Your task to perform on an android device: check android version Image 0: 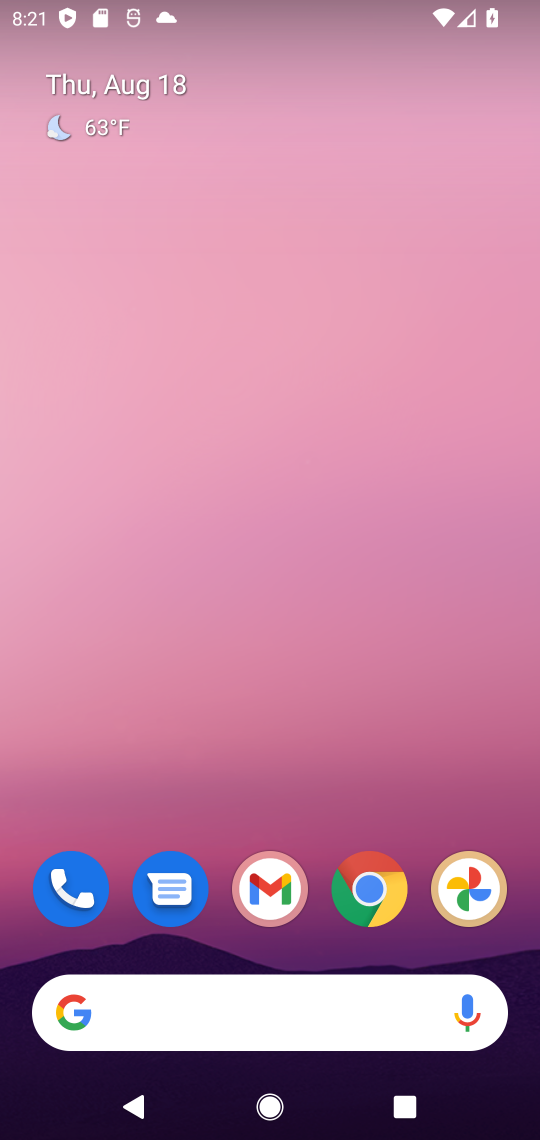
Step 0: press home button
Your task to perform on an android device: check android version Image 1: 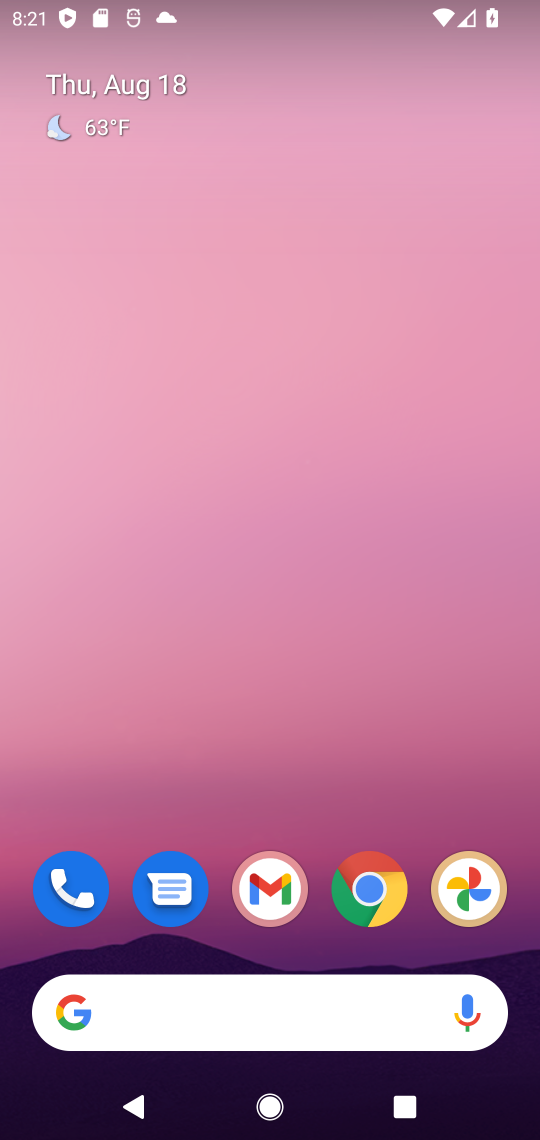
Step 1: drag from (325, 940) to (140, 269)
Your task to perform on an android device: check android version Image 2: 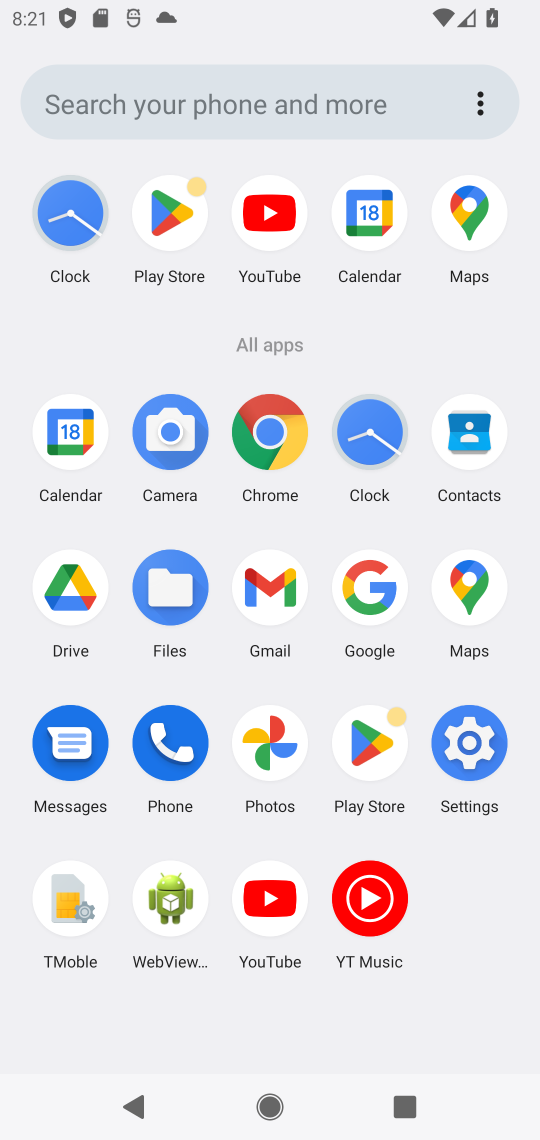
Step 2: click (467, 745)
Your task to perform on an android device: check android version Image 3: 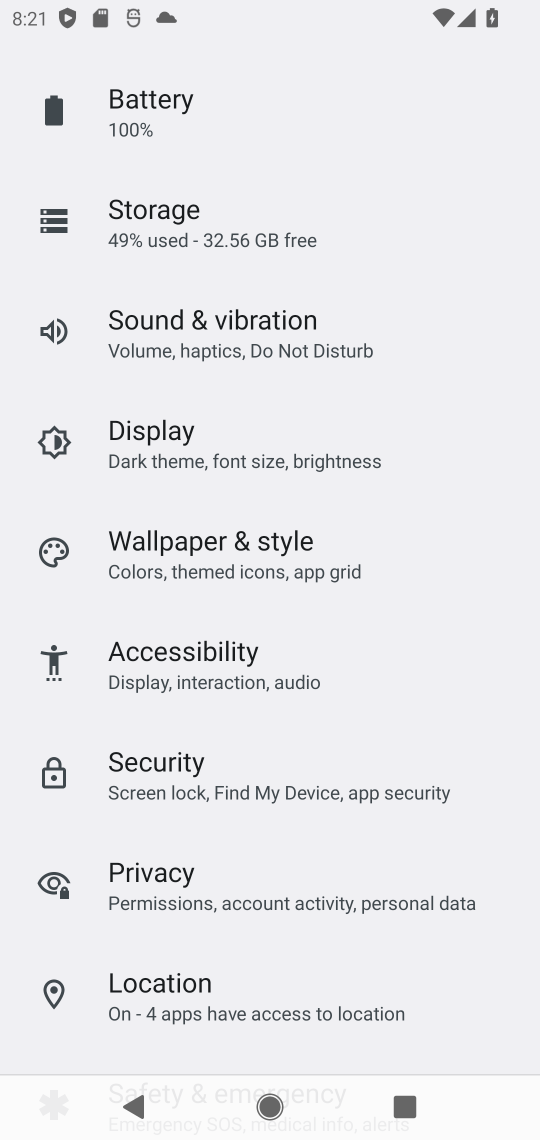
Step 3: drag from (461, 1012) to (73, 29)
Your task to perform on an android device: check android version Image 4: 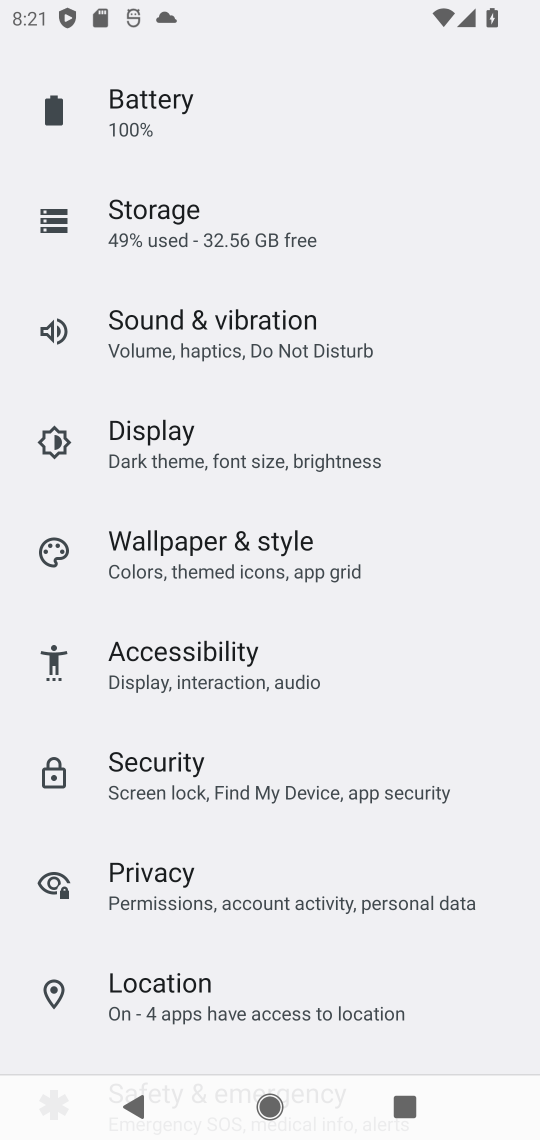
Step 4: drag from (431, 843) to (388, 40)
Your task to perform on an android device: check android version Image 5: 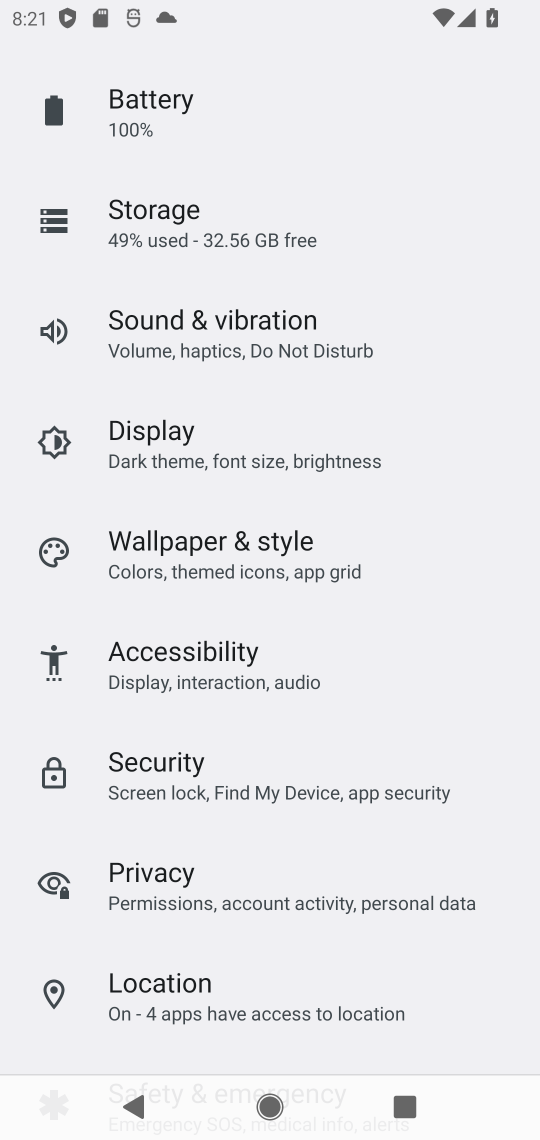
Step 5: drag from (441, 1003) to (327, 114)
Your task to perform on an android device: check android version Image 6: 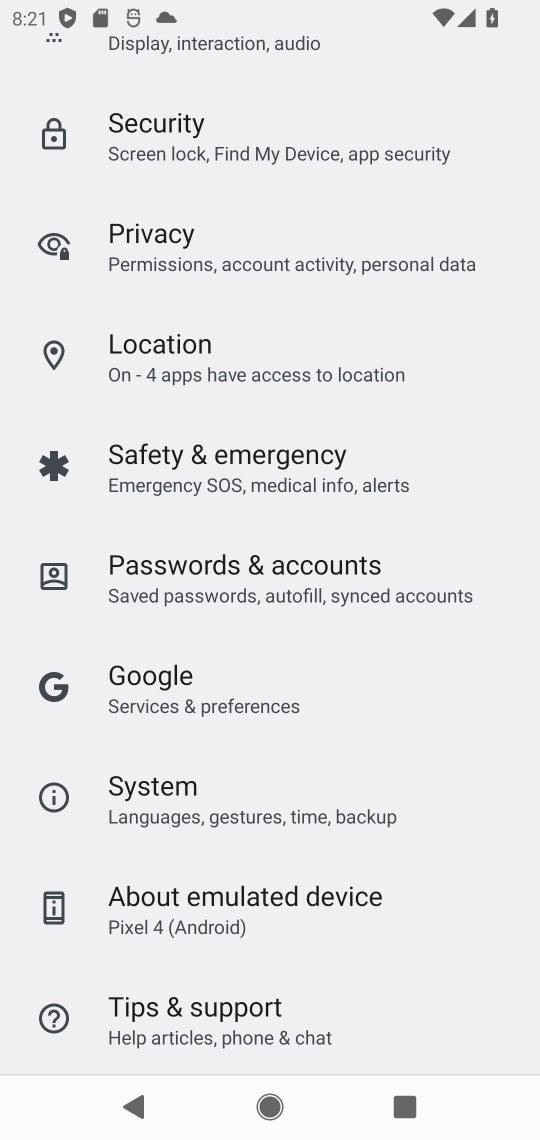
Step 6: drag from (454, 847) to (312, 3)
Your task to perform on an android device: check android version Image 7: 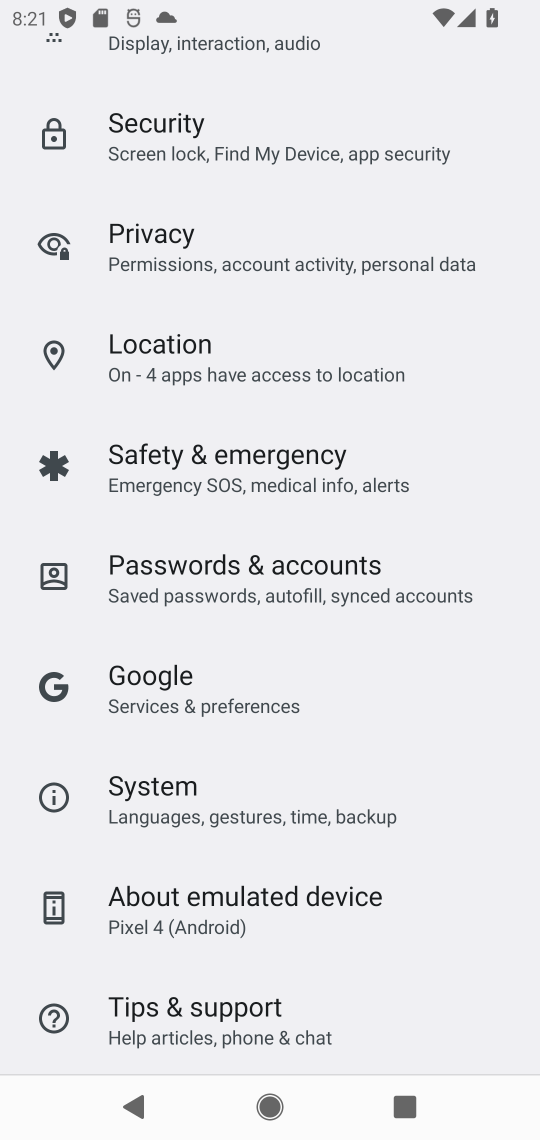
Step 7: click (205, 936)
Your task to perform on an android device: check android version Image 8: 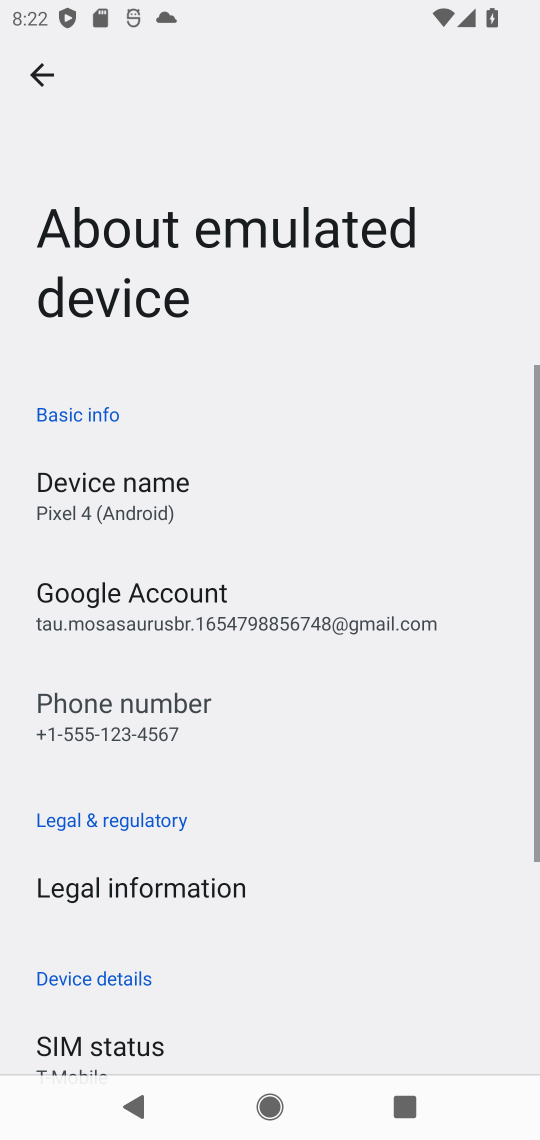
Step 8: task complete